Your task to perform on an android device: move a message to another label in the gmail app Image 0: 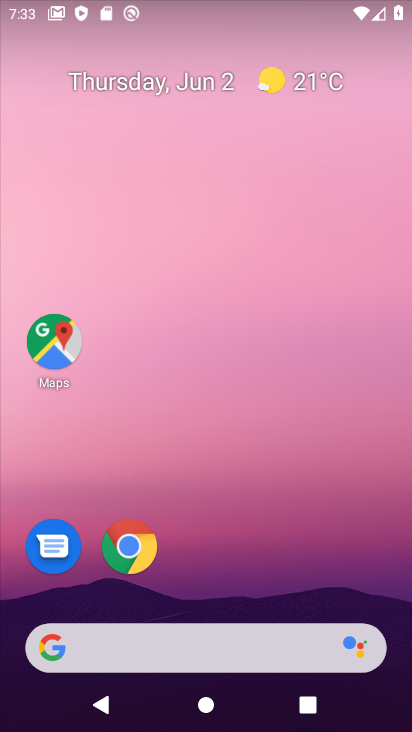
Step 0: drag from (341, 559) to (299, 70)
Your task to perform on an android device: move a message to another label in the gmail app Image 1: 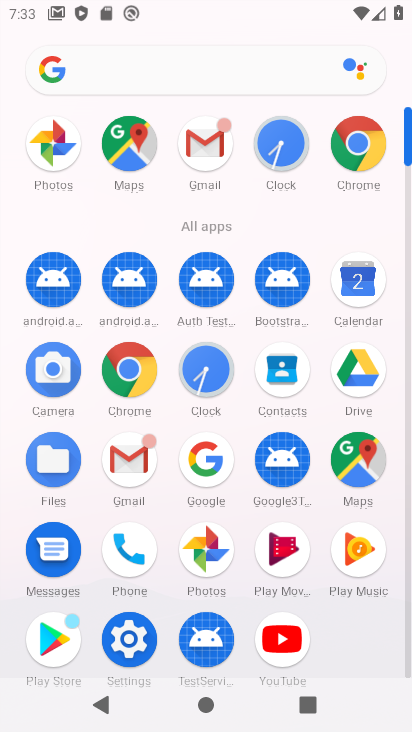
Step 1: click (123, 473)
Your task to perform on an android device: move a message to another label in the gmail app Image 2: 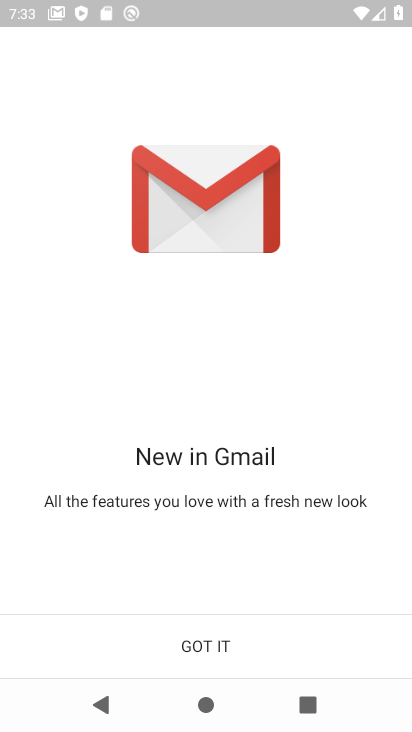
Step 2: click (204, 639)
Your task to perform on an android device: move a message to another label in the gmail app Image 3: 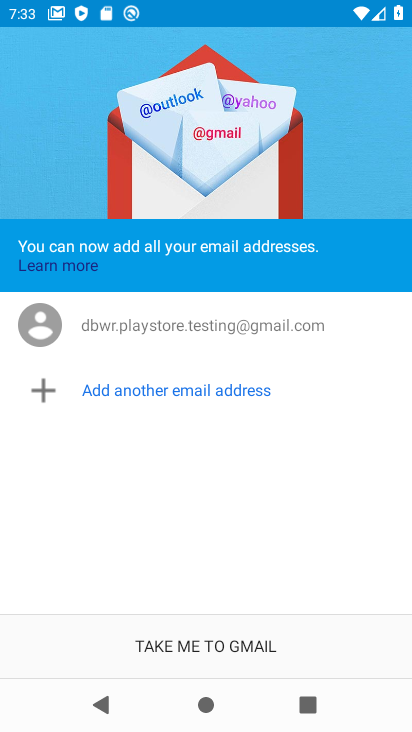
Step 3: click (236, 643)
Your task to perform on an android device: move a message to another label in the gmail app Image 4: 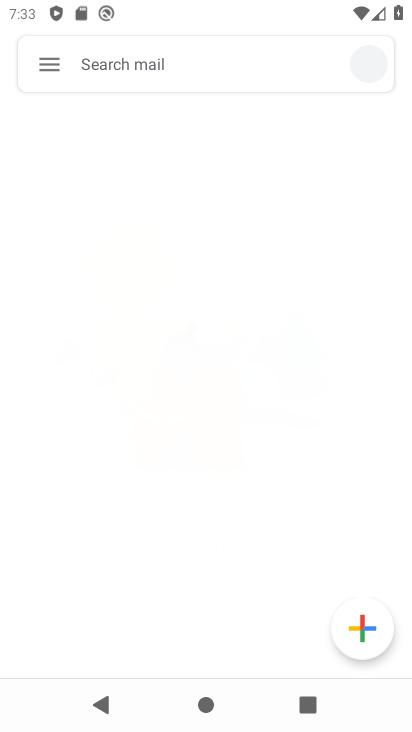
Step 4: click (233, 511)
Your task to perform on an android device: move a message to another label in the gmail app Image 5: 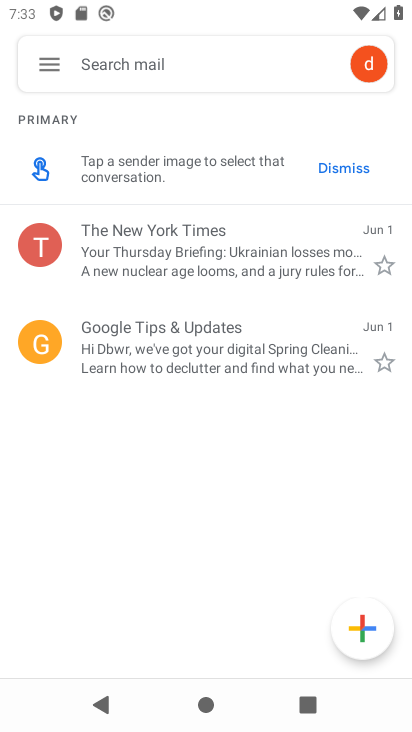
Step 5: click (264, 342)
Your task to perform on an android device: move a message to another label in the gmail app Image 6: 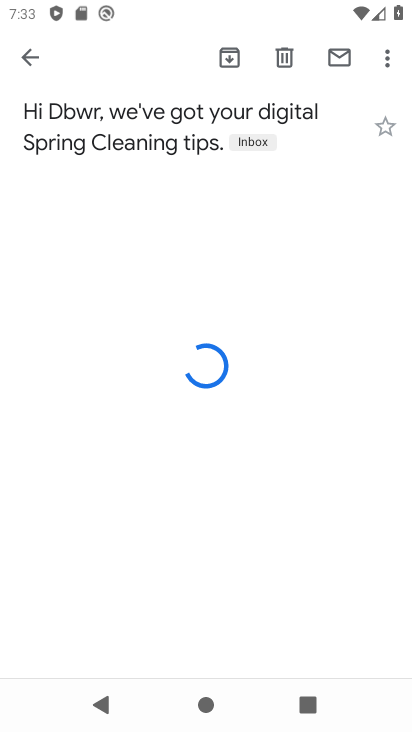
Step 6: click (382, 59)
Your task to perform on an android device: move a message to another label in the gmail app Image 7: 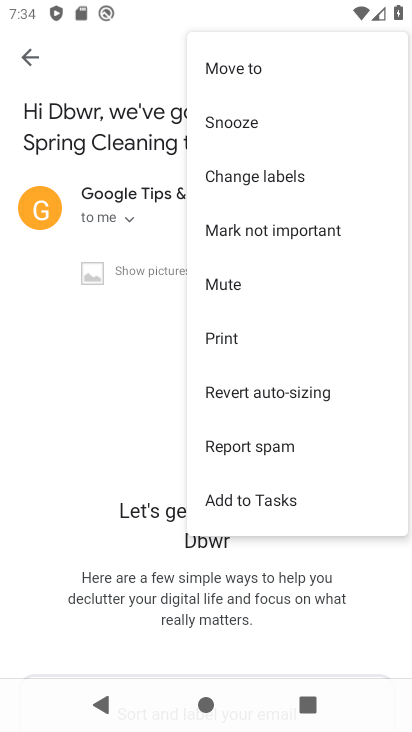
Step 7: click (285, 67)
Your task to perform on an android device: move a message to another label in the gmail app Image 8: 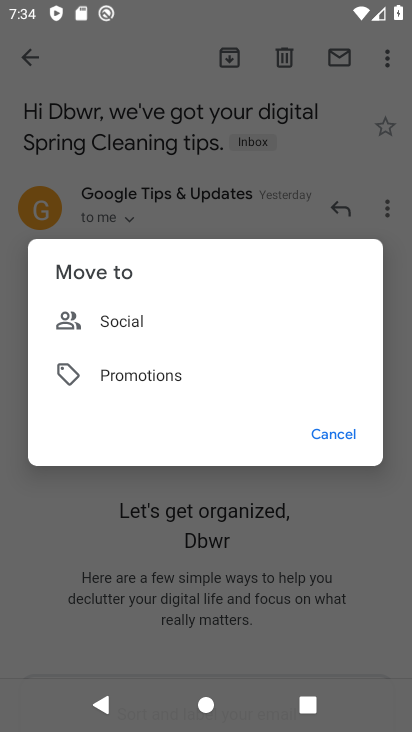
Step 8: click (133, 378)
Your task to perform on an android device: move a message to another label in the gmail app Image 9: 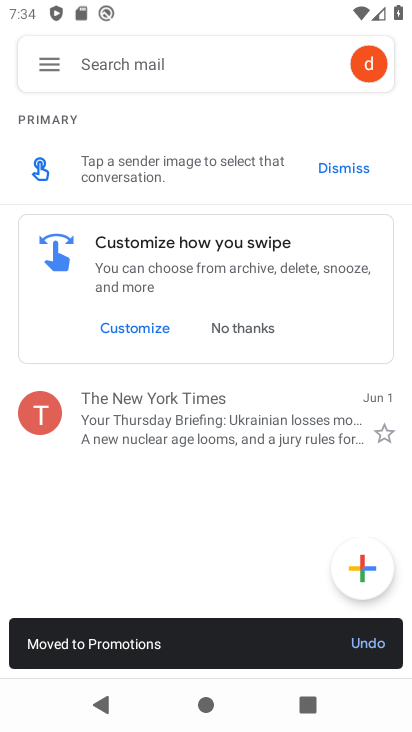
Step 9: task complete